Your task to perform on an android device: turn off location Image 0: 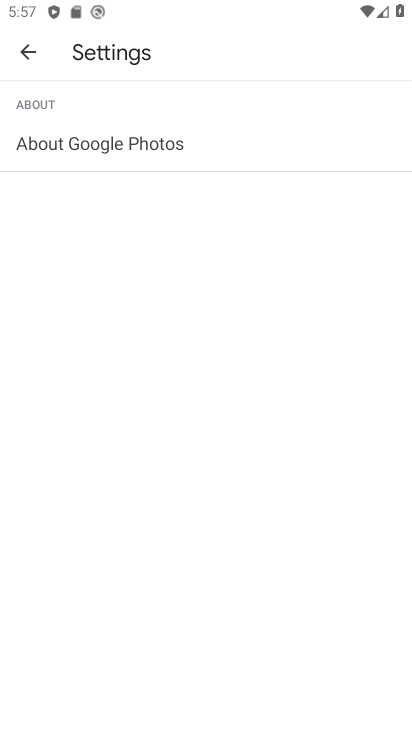
Step 0: press home button
Your task to perform on an android device: turn off location Image 1: 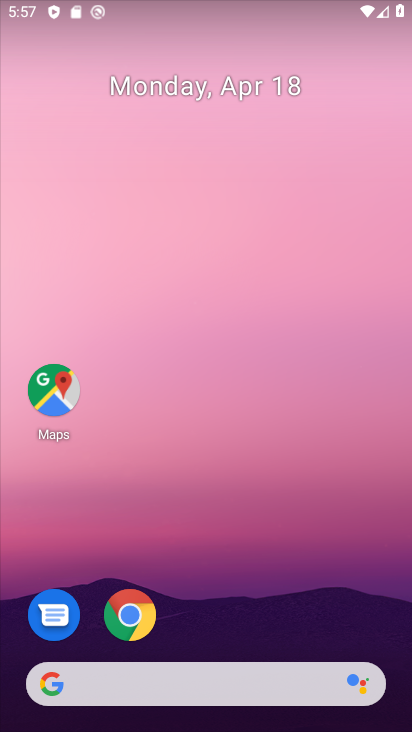
Step 1: drag from (295, 611) to (297, 89)
Your task to perform on an android device: turn off location Image 2: 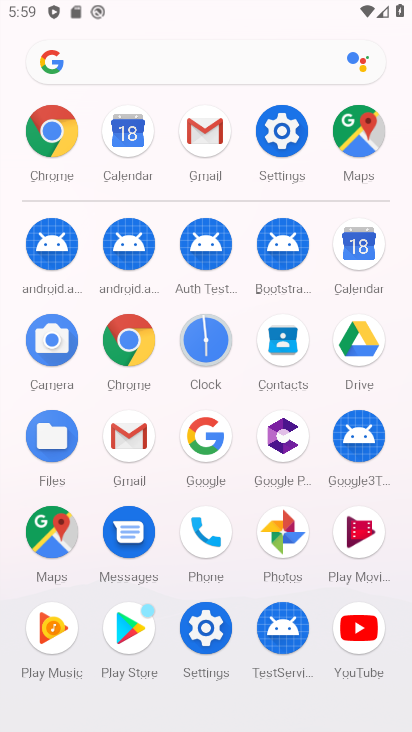
Step 2: click (285, 151)
Your task to perform on an android device: turn off location Image 3: 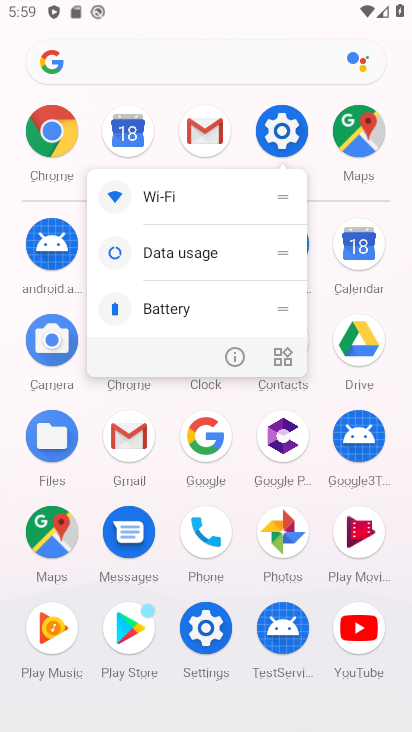
Step 3: click (280, 125)
Your task to perform on an android device: turn off location Image 4: 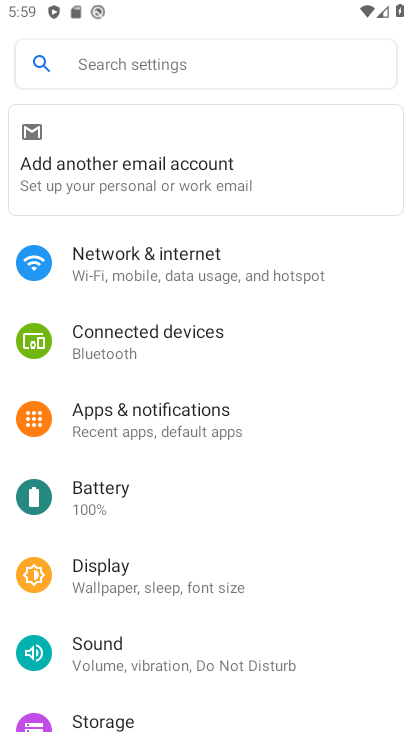
Step 4: drag from (200, 594) to (173, 210)
Your task to perform on an android device: turn off location Image 5: 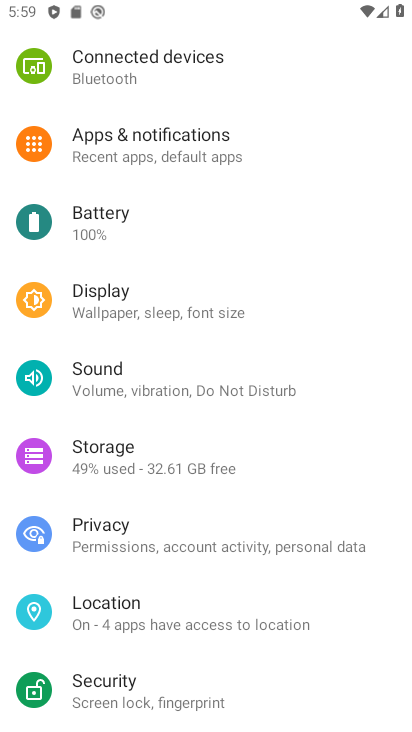
Step 5: drag from (215, 685) to (189, 520)
Your task to perform on an android device: turn off location Image 6: 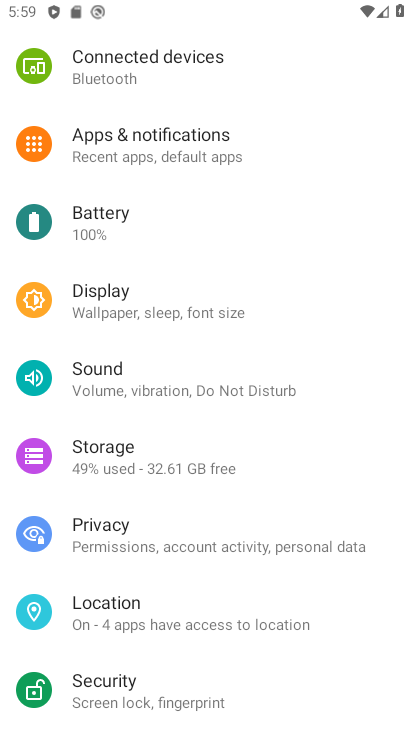
Step 6: click (124, 599)
Your task to perform on an android device: turn off location Image 7: 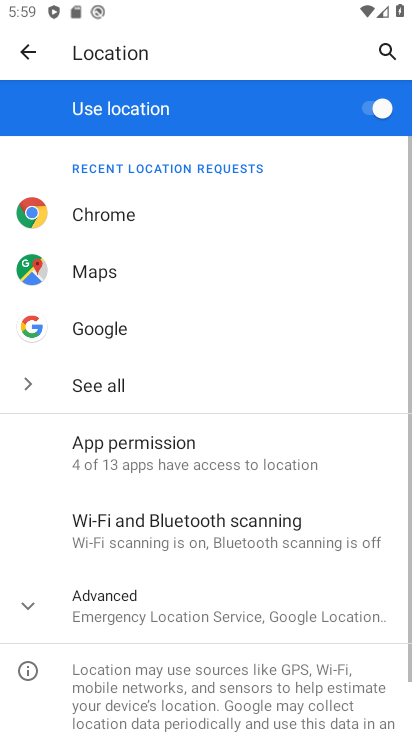
Step 7: click (381, 112)
Your task to perform on an android device: turn off location Image 8: 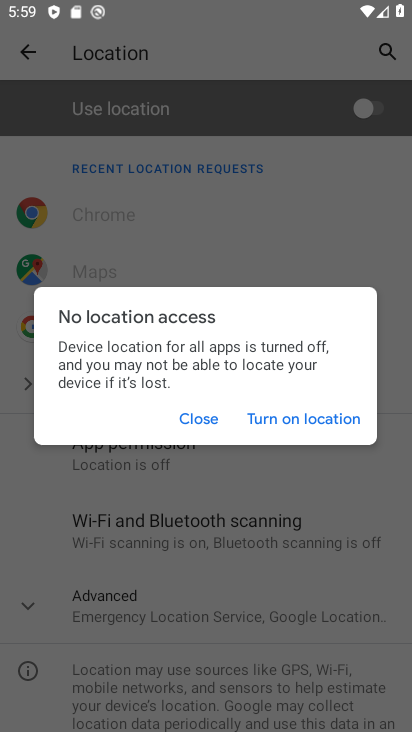
Step 8: click (214, 416)
Your task to perform on an android device: turn off location Image 9: 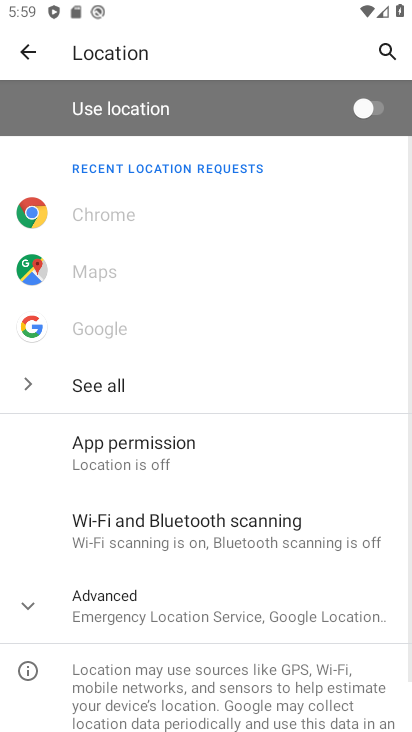
Step 9: task complete